Your task to perform on an android device: Open Google Chrome Image 0: 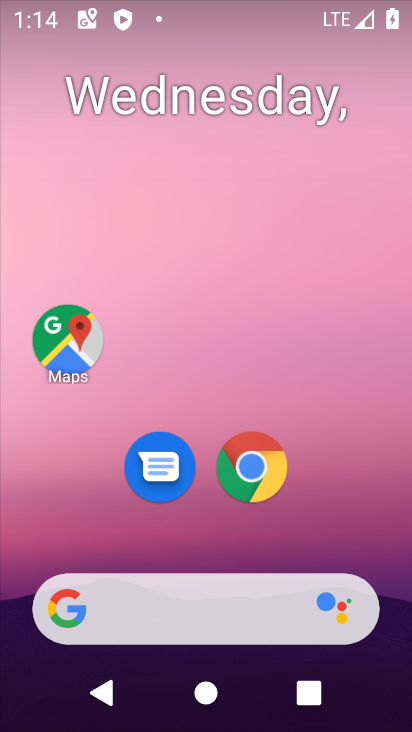
Step 0: click (252, 463)
Your task to perform on an android device: Open Google Chrome Image 1: 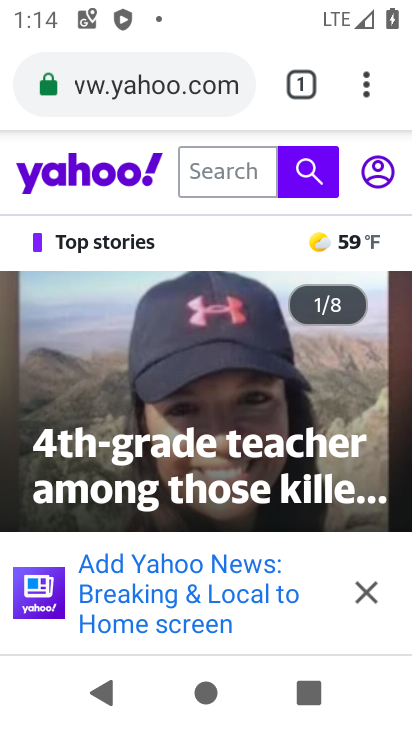
Step 1: task complete